Your task to perform on an android device: Is it going to rain today? Image 0: 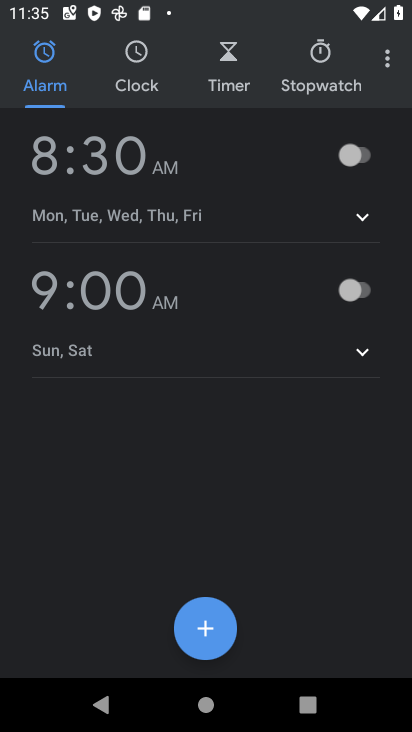
Step 0: press home button
Your task to perform on an android device: Is it going to rain today? Image 1: 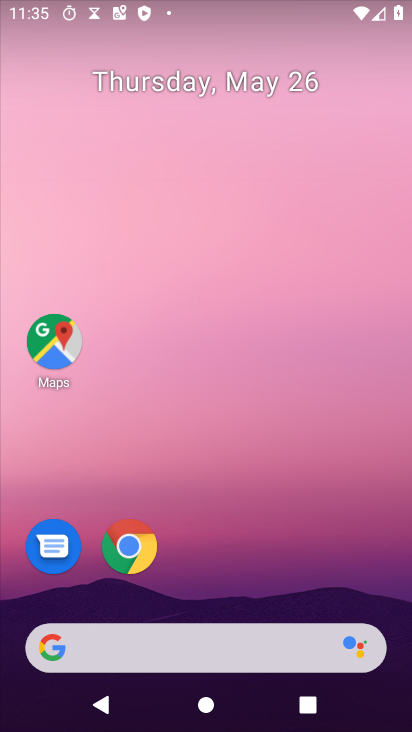
Step 1: drag from (338, 576) to (319, 127)
Your task to perform on an android device: Is it going to rain today? Image 2: 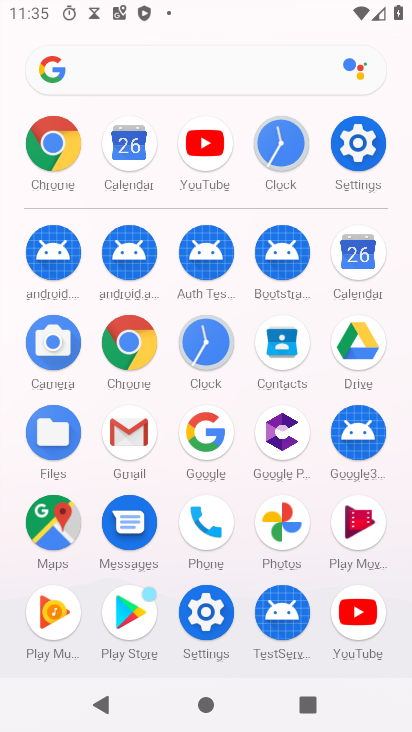
Step 2: click (135, 335)
Your task to perform on an android device: Is it going to rain today? Image 3: 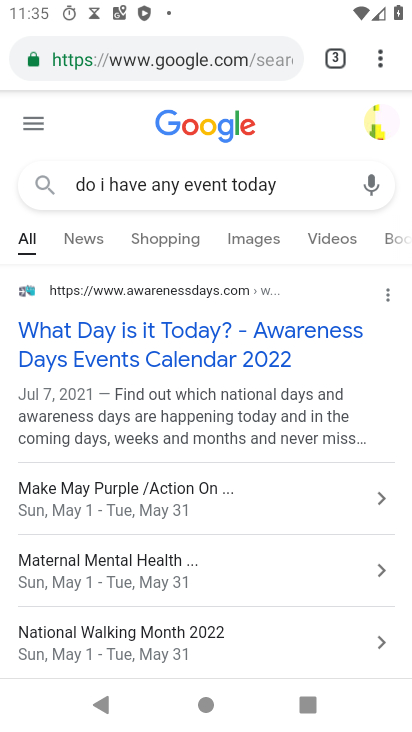
Step 3: click (232, 58)
Your task to perform on an android device: Is it going to rain today? Image 4: 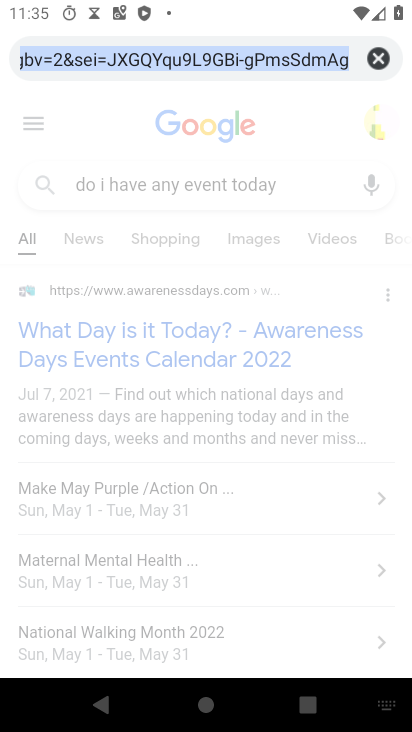
Step 4: click (380, 59)
Your task to perform on an android device: Is it going to rain today? Image 5: 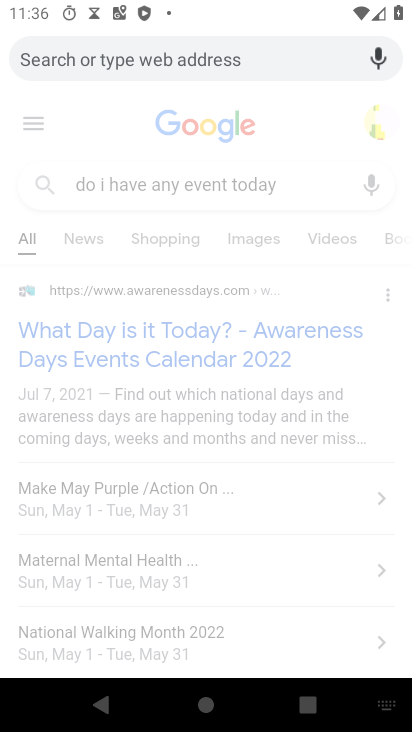
Step 5: type "is it going to rain today"
Your task to perform on an android device: Is it going to rain today? Image 6: 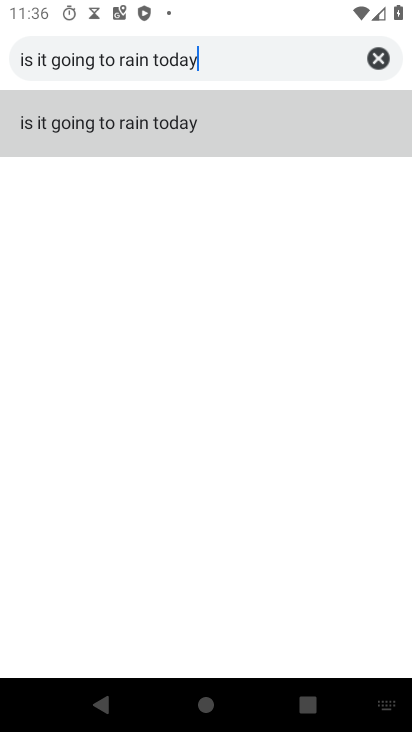
Step 6: click (154, 134)
Your task to perform on an android device: Is it going to rain today? Image 7: 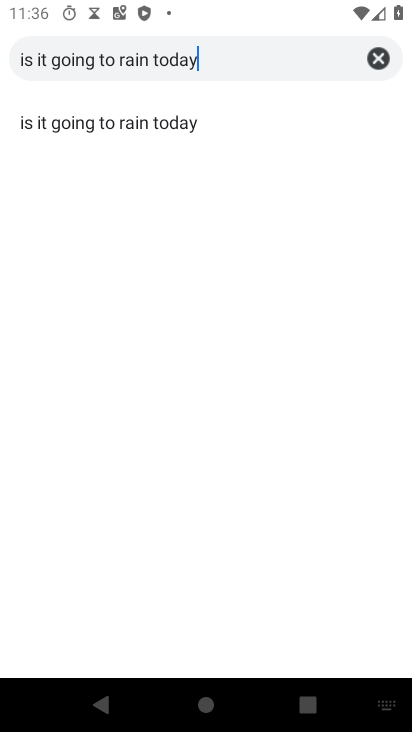
Step 7: click (125, 130)
Your task to perform on an android device: Is it going to rain today? Image 8: 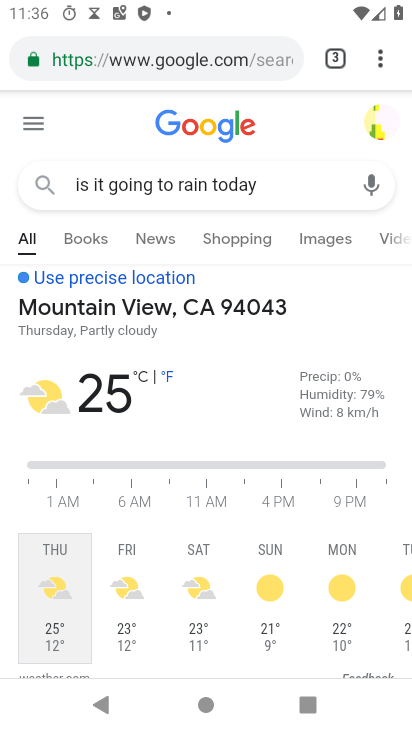
Step 8: task complete